Your task to perform on an android device: open chrome privacy settings Image 0: 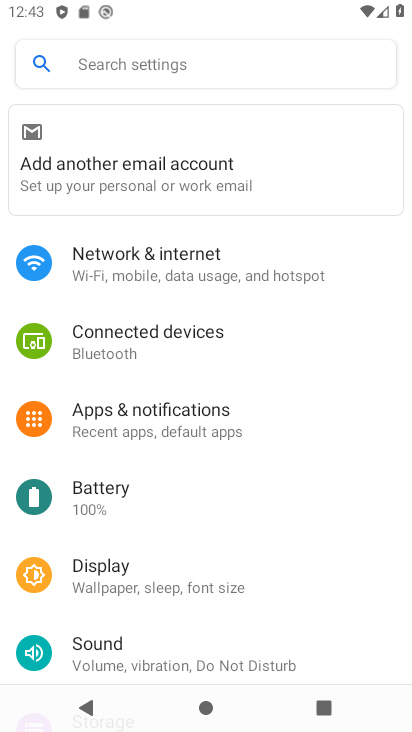
Step 0: drag from (281, 634) to (283, 156)
Your task to perform on an android device: open chrome privacy settings Image 1: 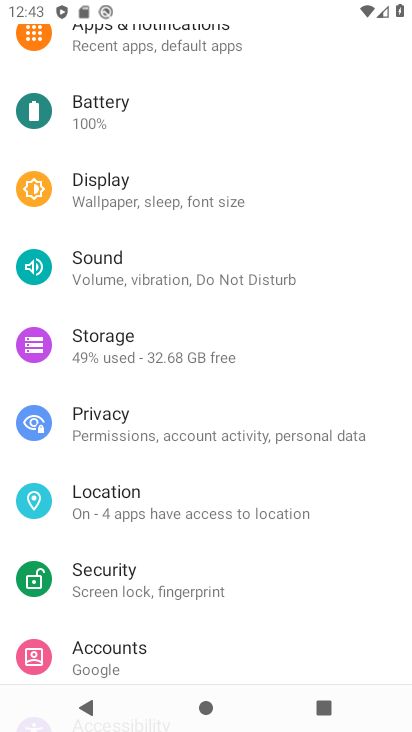
Step 1: click (241, 419)
Your task to perform on an android device: open chrome privacy settings Image 2: 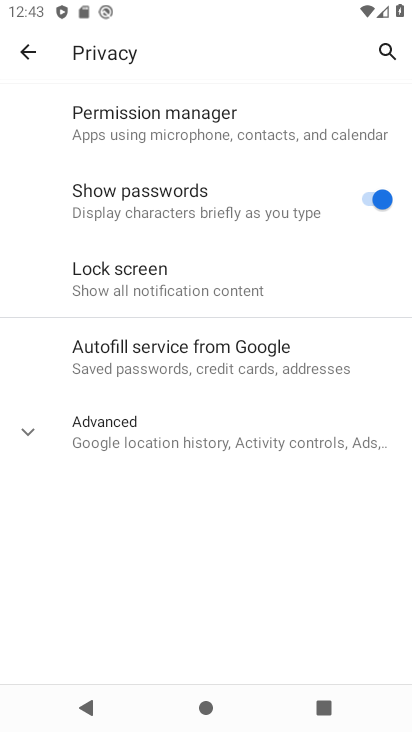
Step 2: task complete